Your task to perform on an android device: Go to battery settings Image 0: 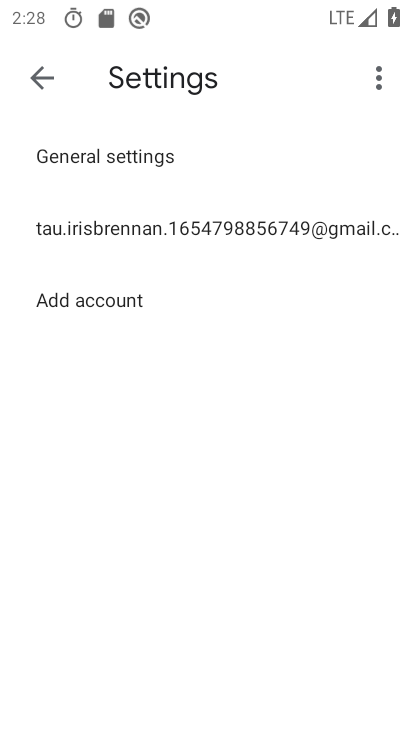
Step 0: press home button
Your task to perform on an android device: Go to battery settings Image 1: 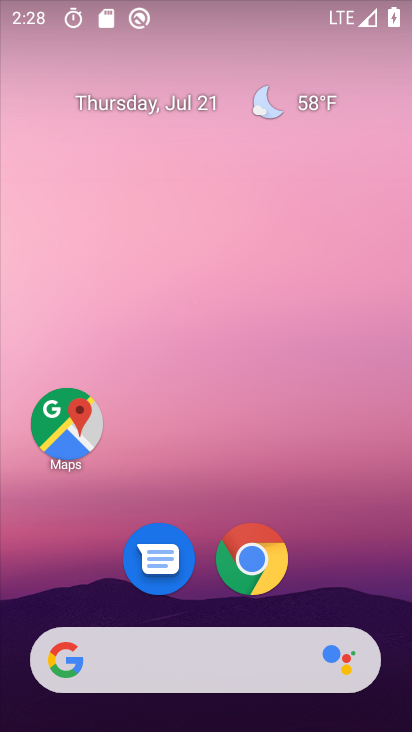
Step 1: drag from (375, 582) to (357, 151)
Your task to perform on an android device: Go to battery settings Image 2: 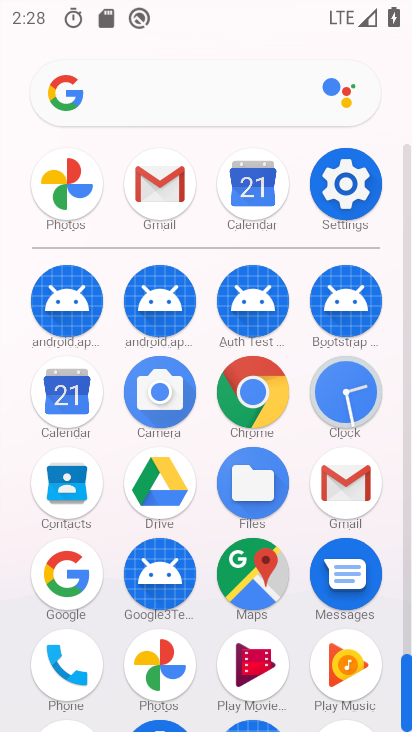
Step 2: click (351, 200)
Your task to perform on an android device: Go to battery settings Image 3: 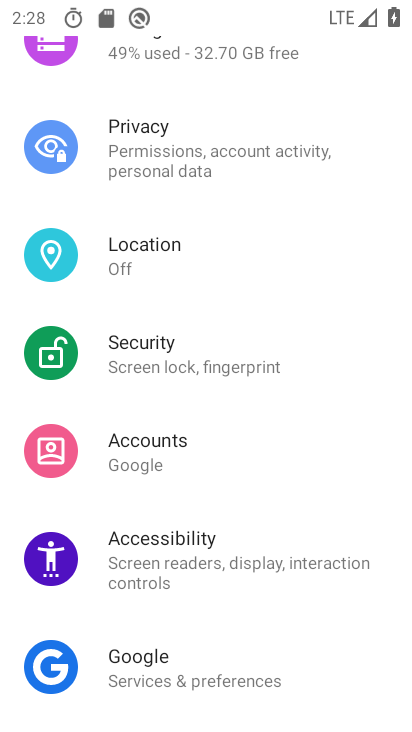
Step 3: drag from (331, 476) to (332, 349)
Your task to perform on an android device: Go to battery settings Image 4: 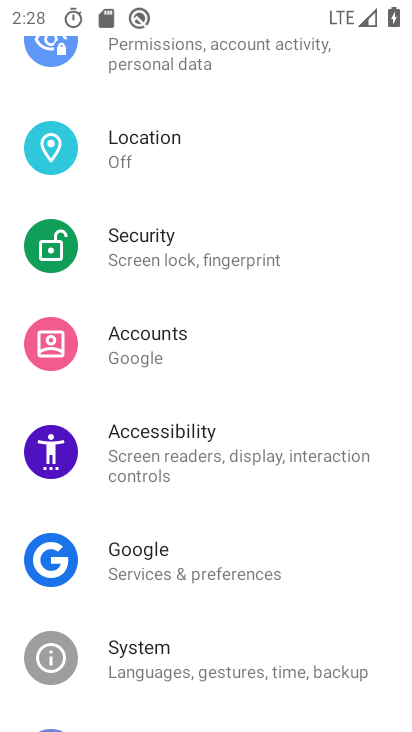
Step 4: drag from (321, 512) to (328, 366)
Your task to perform on an android device: Go to battery settings Image 5: 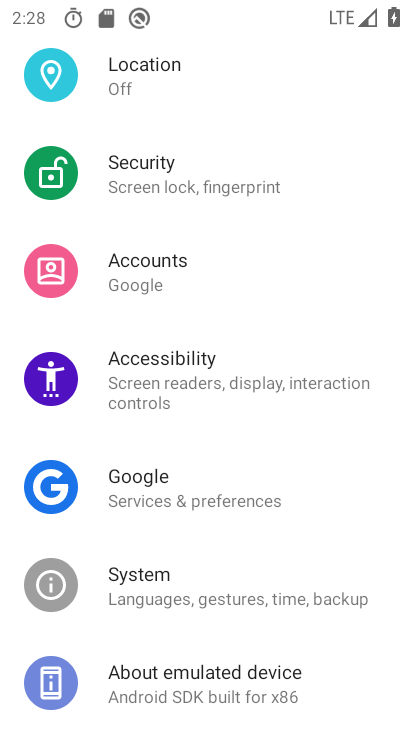
Step 5: drag from (325, 420) to (326, 527)
Your task to perform on an android device: Go to battery settings Image 6: 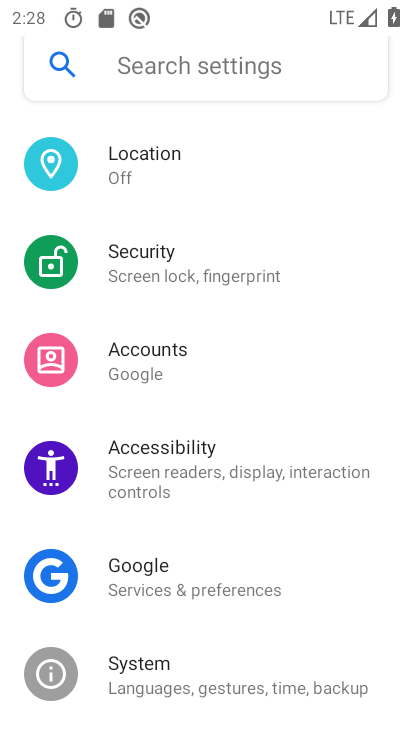
Step 6: drag from (327, 324) to (331, 424)
Your task to perform on an android device: Go to battery settings Image 7: 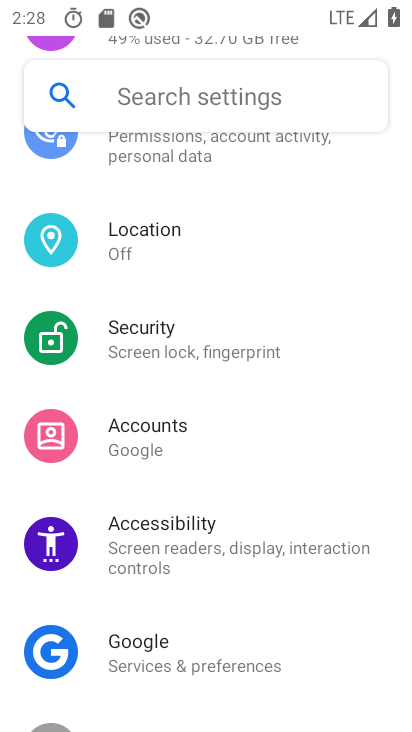
Step 7: drag from (333, 288) to (336, 412)
Your task to perform on an android device: Go to battery settings Image 8: 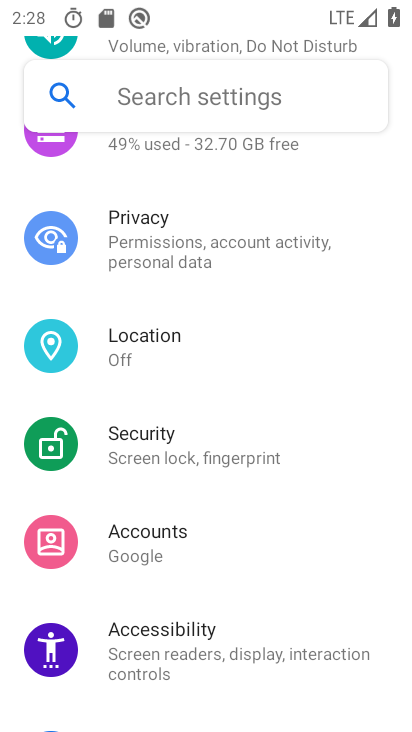
Step 8: drag from (321, 333) to (320, 433)
Your task to perform on an android device: Go to battery settings Image 9: 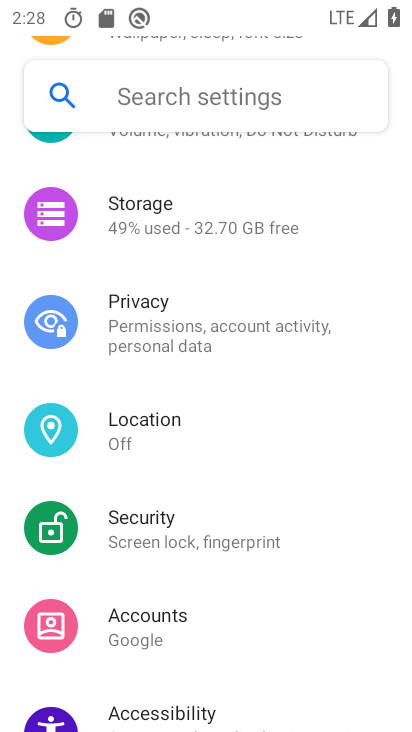
Step 9: drag from (343, 283) to (343, 420)
Your task to perform on an android device: Go to battery settings Image 10: 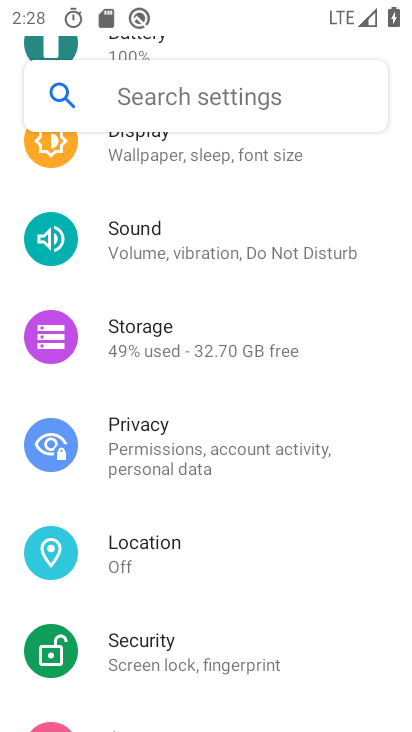
Step 10: drag from (343, 301) to (349, 398)
Your task to perform on an android device: Go to battery settings Image 11: 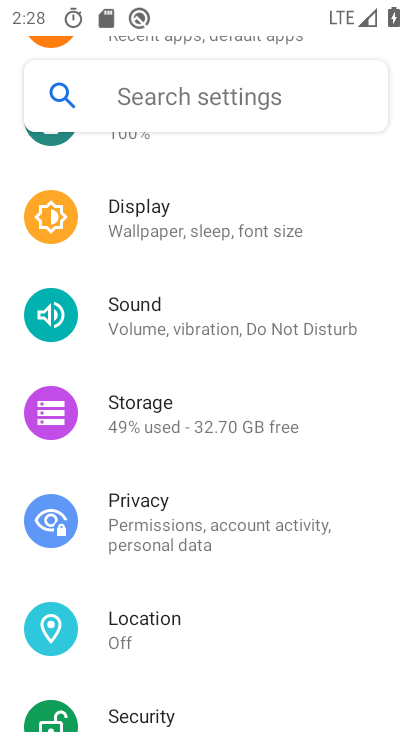
Step 11: drag from (367, 283) to (364, 414)
Your task to perform on an android device: Go to battery settings Image 12: 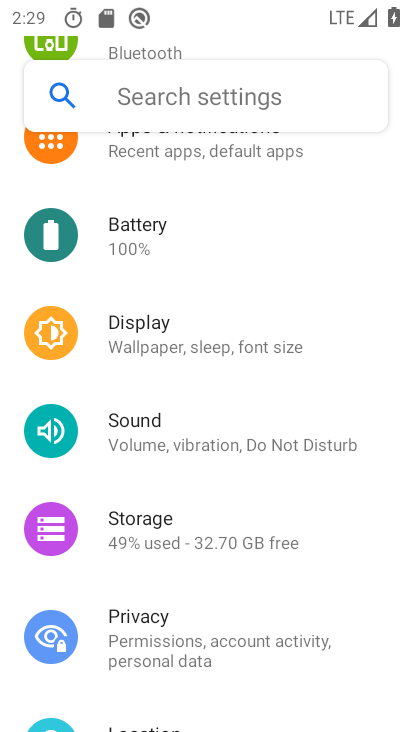
Step 12: drag from (351, 262) to (343, 419)
Your task to perform on an android device: Go to battery settings Image 13: 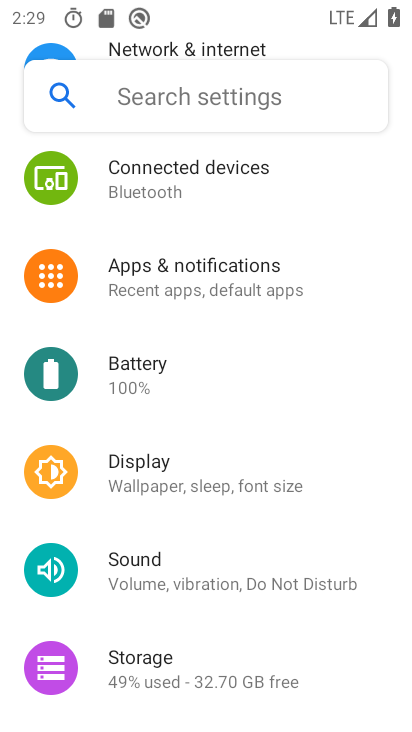
Step 13: click (213, 389)
Your task to perform on an android device: Go to battery settings Image 14: 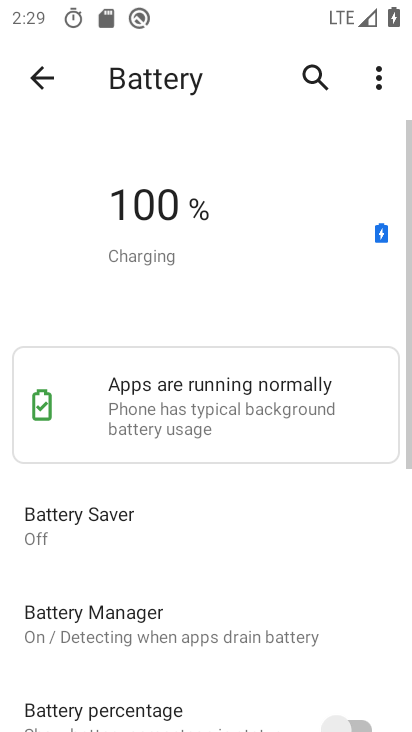
Step 14: task complete